Your task to perform on an android device: Go to calendar. Show me events next week Image 0: 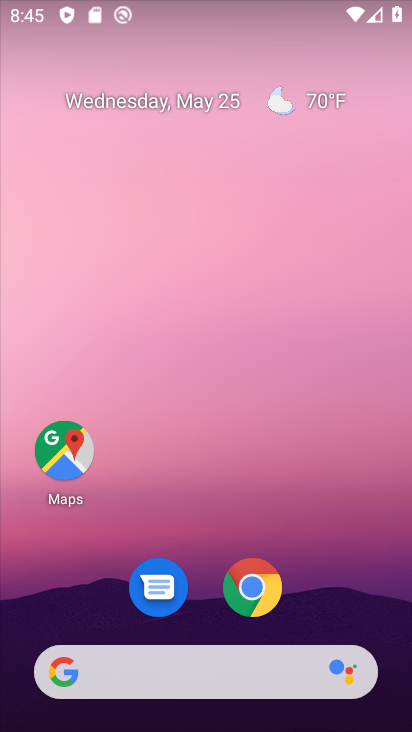
Step 0: drag from (195, 587) to (189, 4)
Your task to perform on an android device: Go to calendar. Show me events next week Image 1: 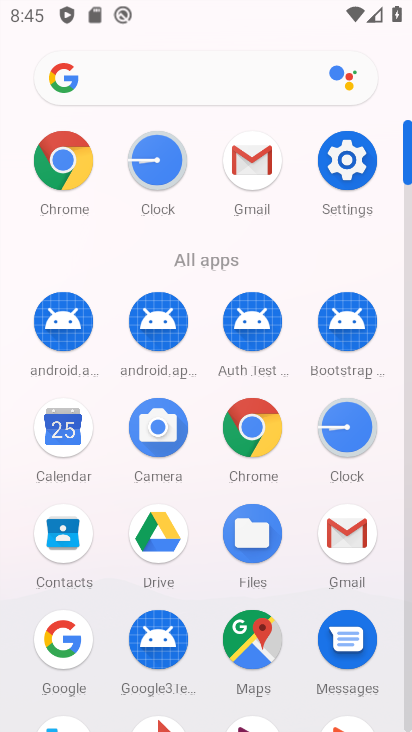
Step 1: click (62, 436)
Your task to perform on an android device: Go to calendar. Show me events next week Image 2: 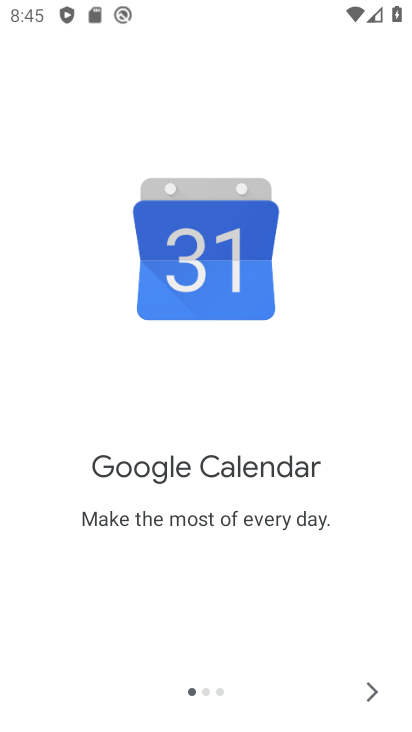
Step 2: click (372, 689)
Your task to perform on an android device: Go to calendar. Show me events next week Image 3: 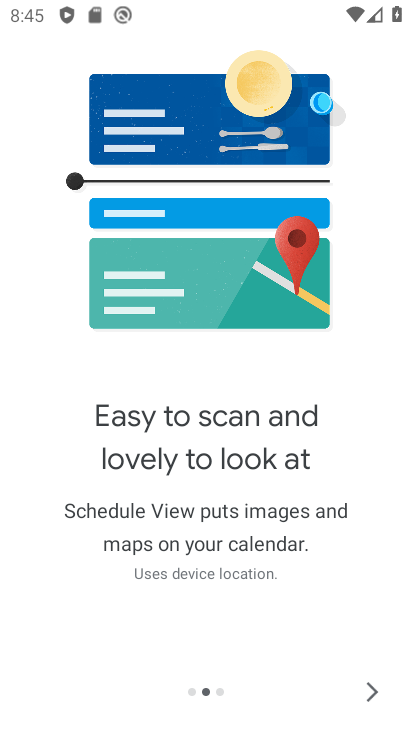
Step 3: click (372, 689)
Your task to perform on an android device: Go to calendar. Show me events next week Image 4: 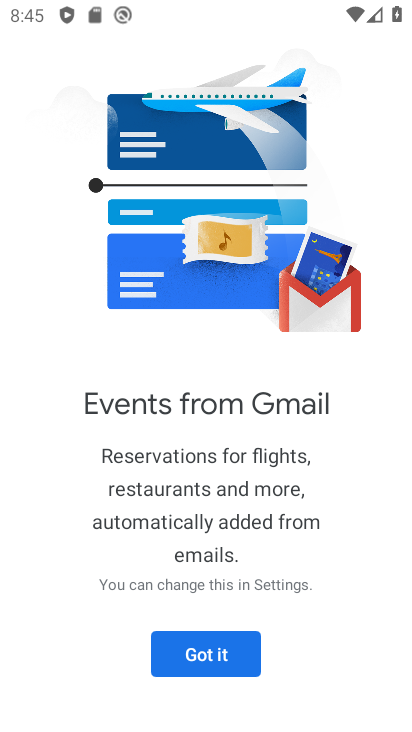
Step 4: click (233, 655)
Your task to perform on an android device: Go to calendar. Show me events next week Image 5: 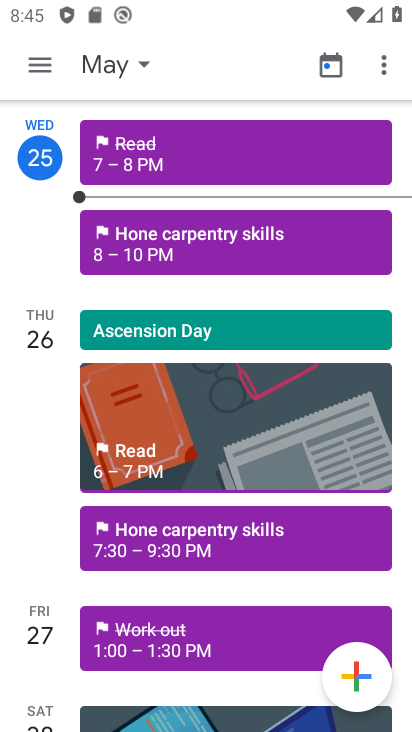
Step 5: click (42, 61)
Your task to perform on an android device: Go to calendar. Show me events next week Image 6: 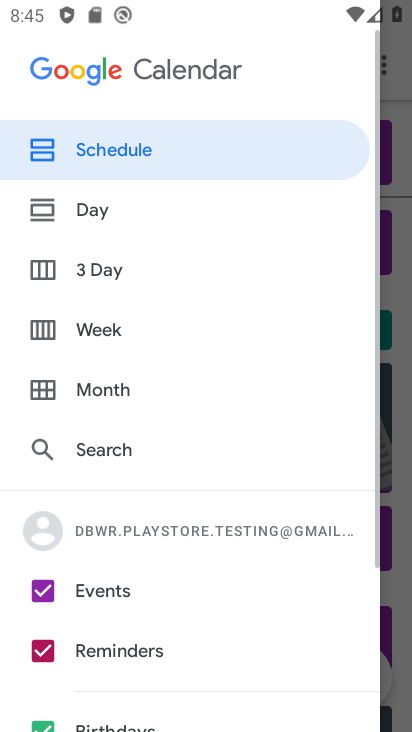
Step 6: click (104, 649)
Your task to perform on an android device: Go to calendar. Show me events next week Image 7: 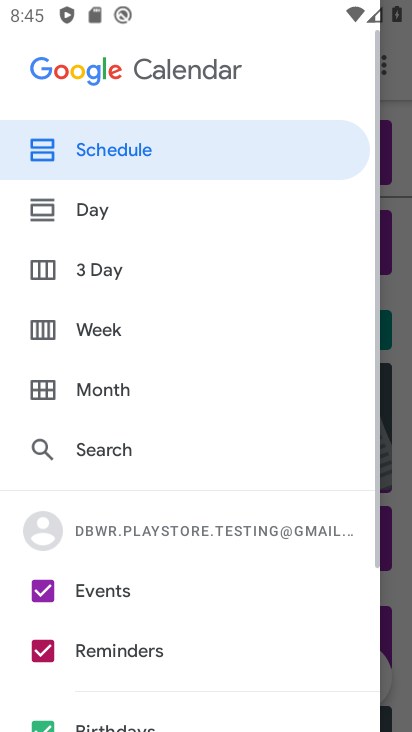
Step 7: drag from (104, 650) to (144, 293)
Your task to perform on an android device: Go to calendar. Show me events next week Image 8: 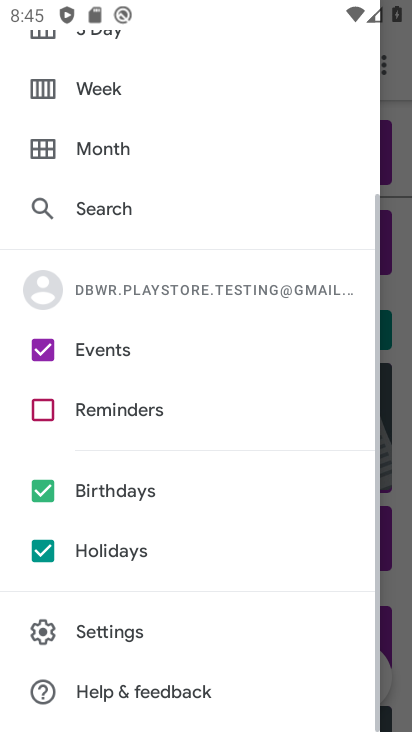
Step 8: click (79, 550)
Your task to perform on an android device: Go to calendar. Show me events next week Image 9: 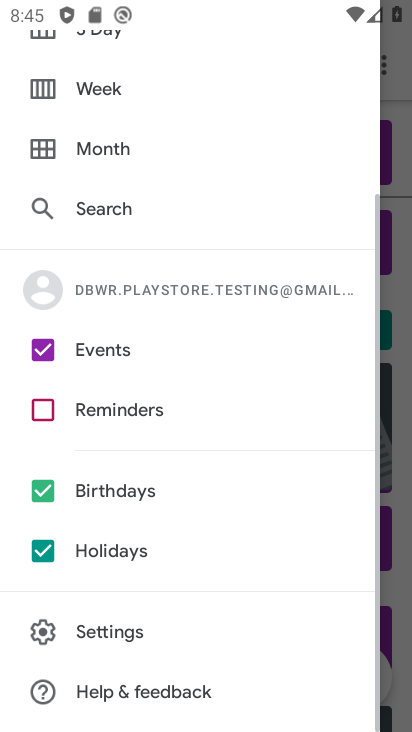
Step 9: click (54, 492)
Your task to perform on an android device: Go to calendar. Show me events next week Image 10: 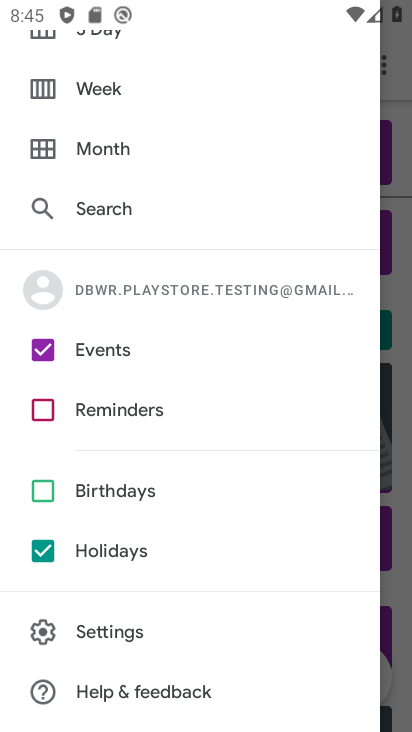
Step 10: click (49, 534)
Your task to perform on an android device: Go to calendar. Show me events next week Image 11: 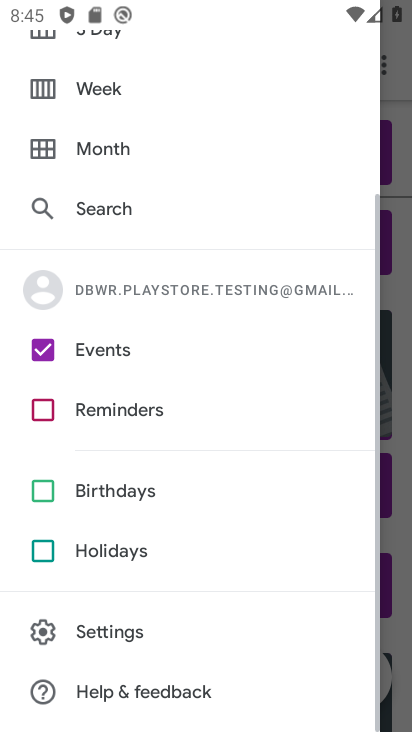
Step 11: drag from (244, 187) to (233, 392)
Your task to perform on an android device: Go to calendar. Show me events next week Image 12: 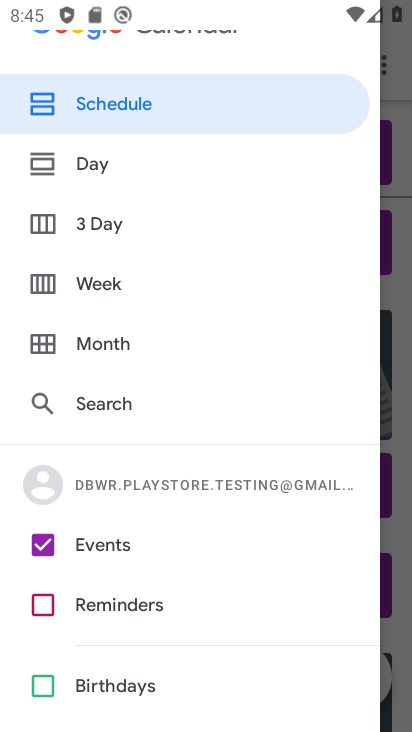
Step 12: click (115, 290)
Your task to perform on an android device: Go to calendar. Show me events next week Image 13: 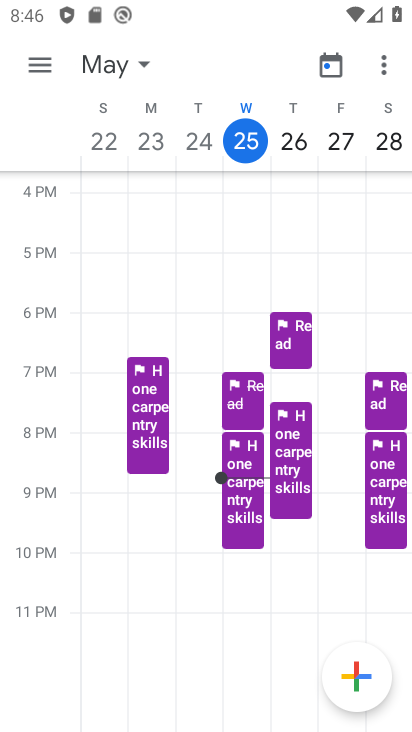
Step 13: task complete